Your task to perform on an android device: Show the shopping cart on ebay. Add "macbook air" to the cart on ebay, then select checkout. Image 0: 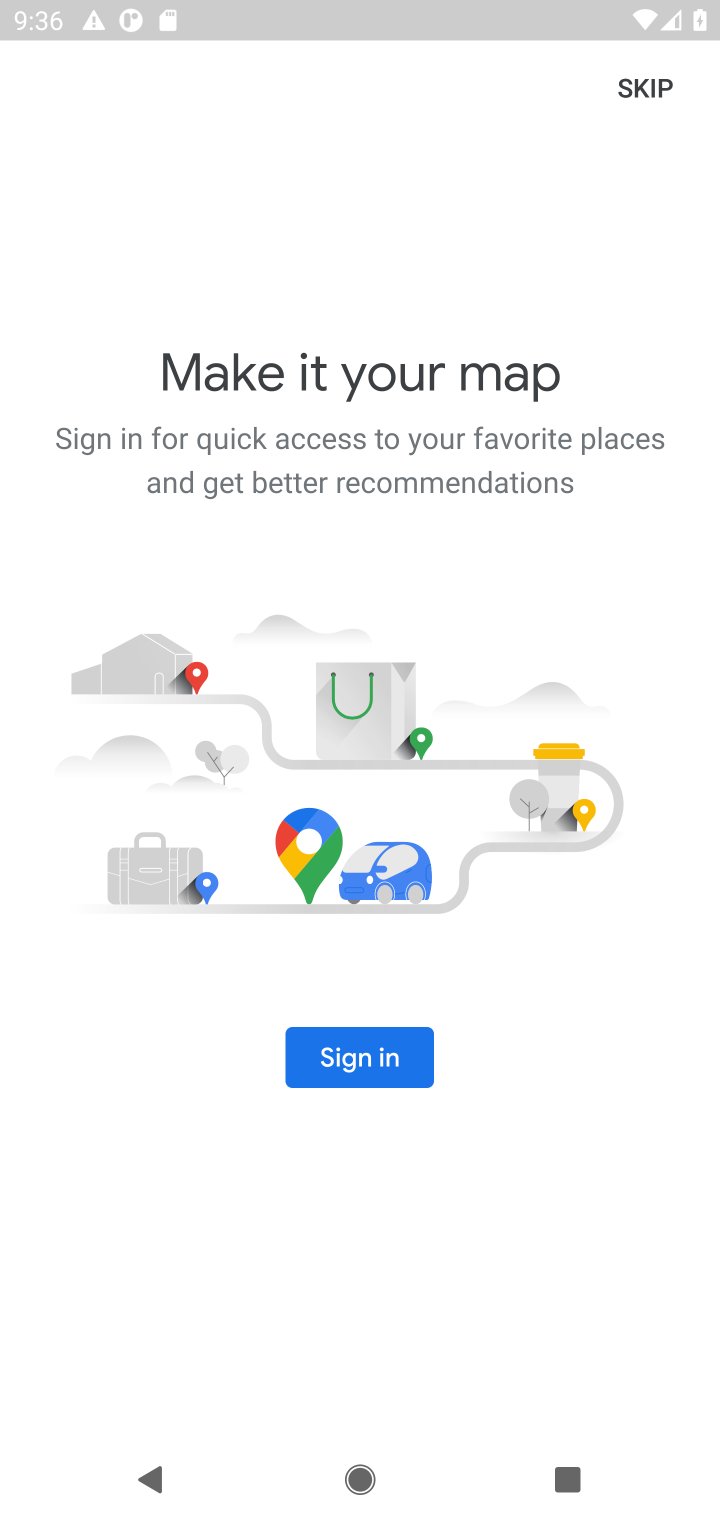
Step 0: press home button
Your task to perform on an android device: Show the shopping cart on ebay. Add "macbook air" to the cart on ebay, then select checkout. Image 1: 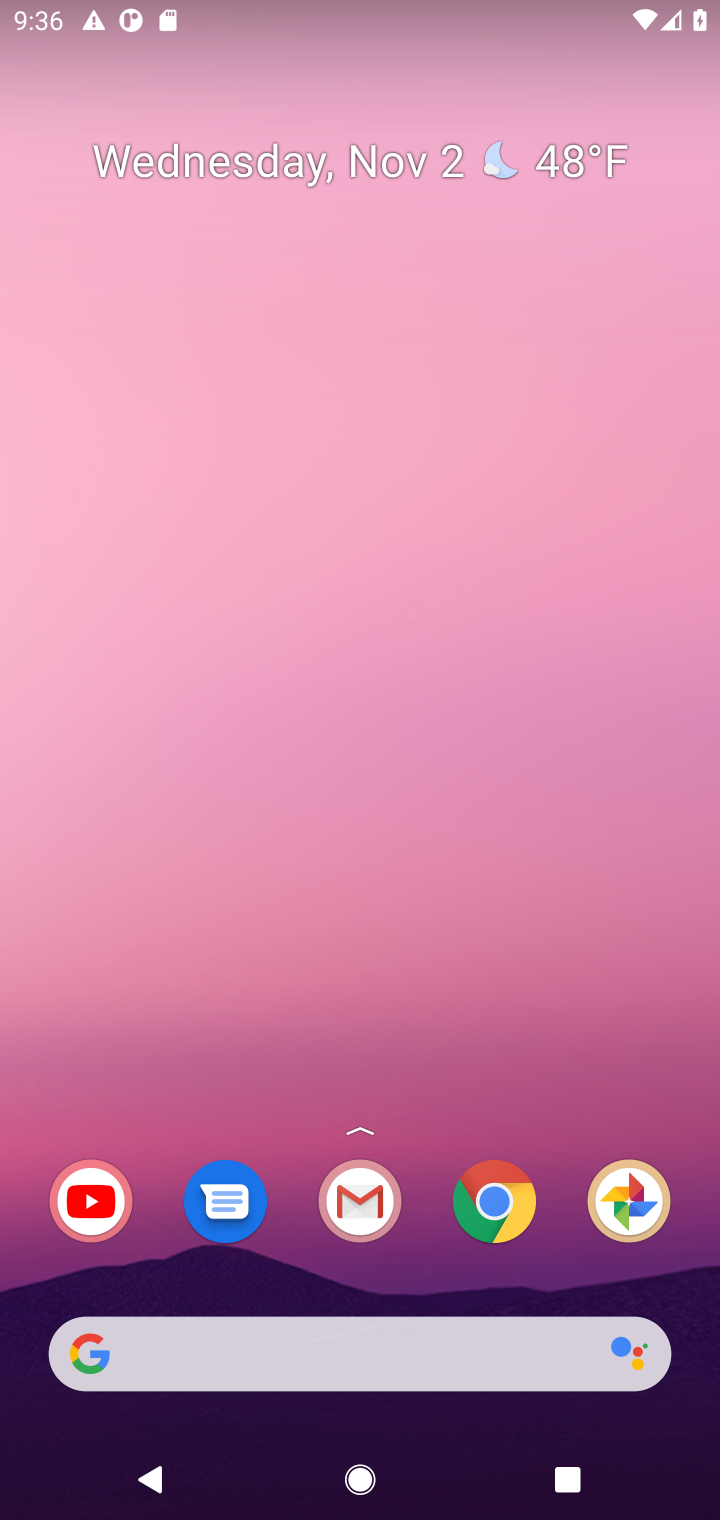
Step 1: drag from (424, 1259) to (423, 241)
Your task to perform on an android device: Show the shopping cart on ebay. Add "macbook air" to the cart on ebay, then select checkout. Image 2: 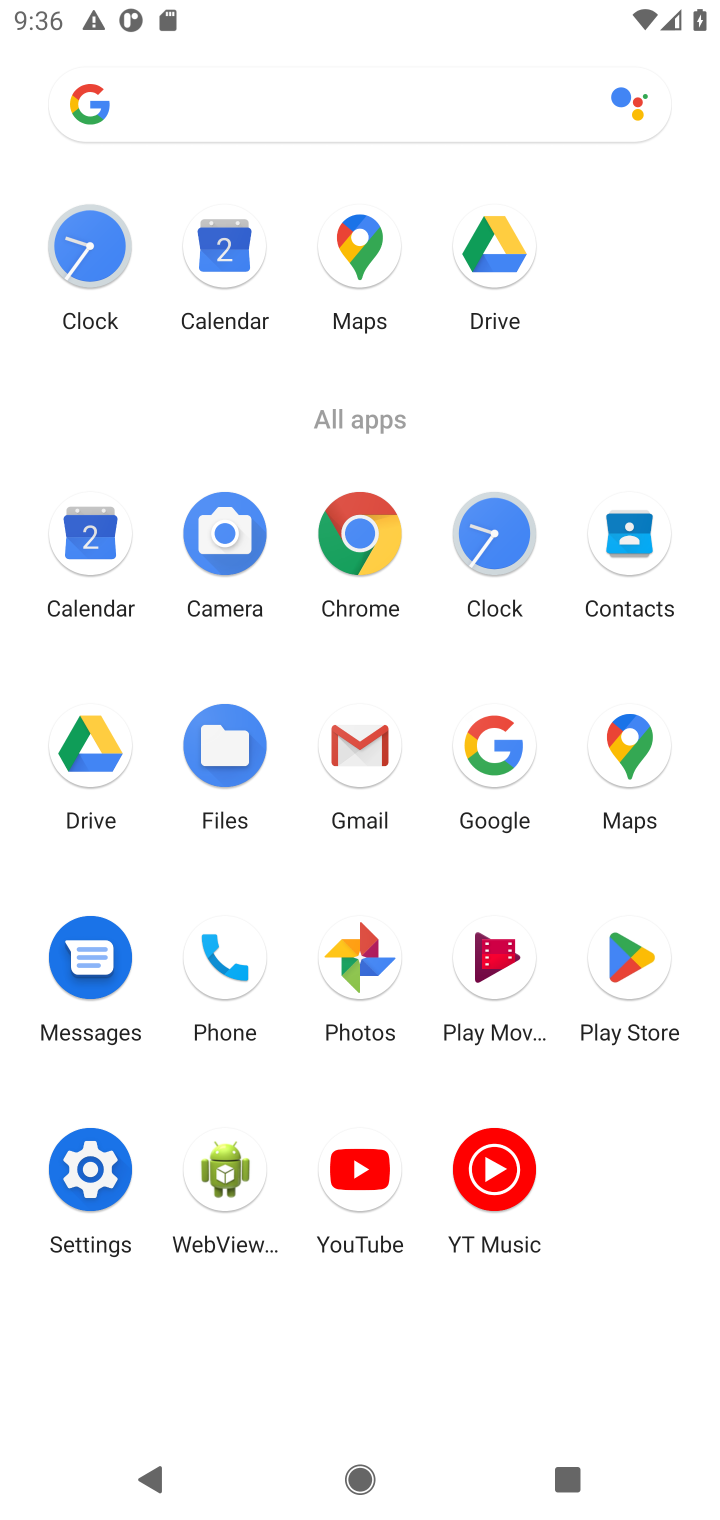
Step 2: click (354, 532)
Your task to perform on an android device: Show the shopping cart on ebay. Add "macbook air" to the cart on ebay, then select checkout. Image 3: 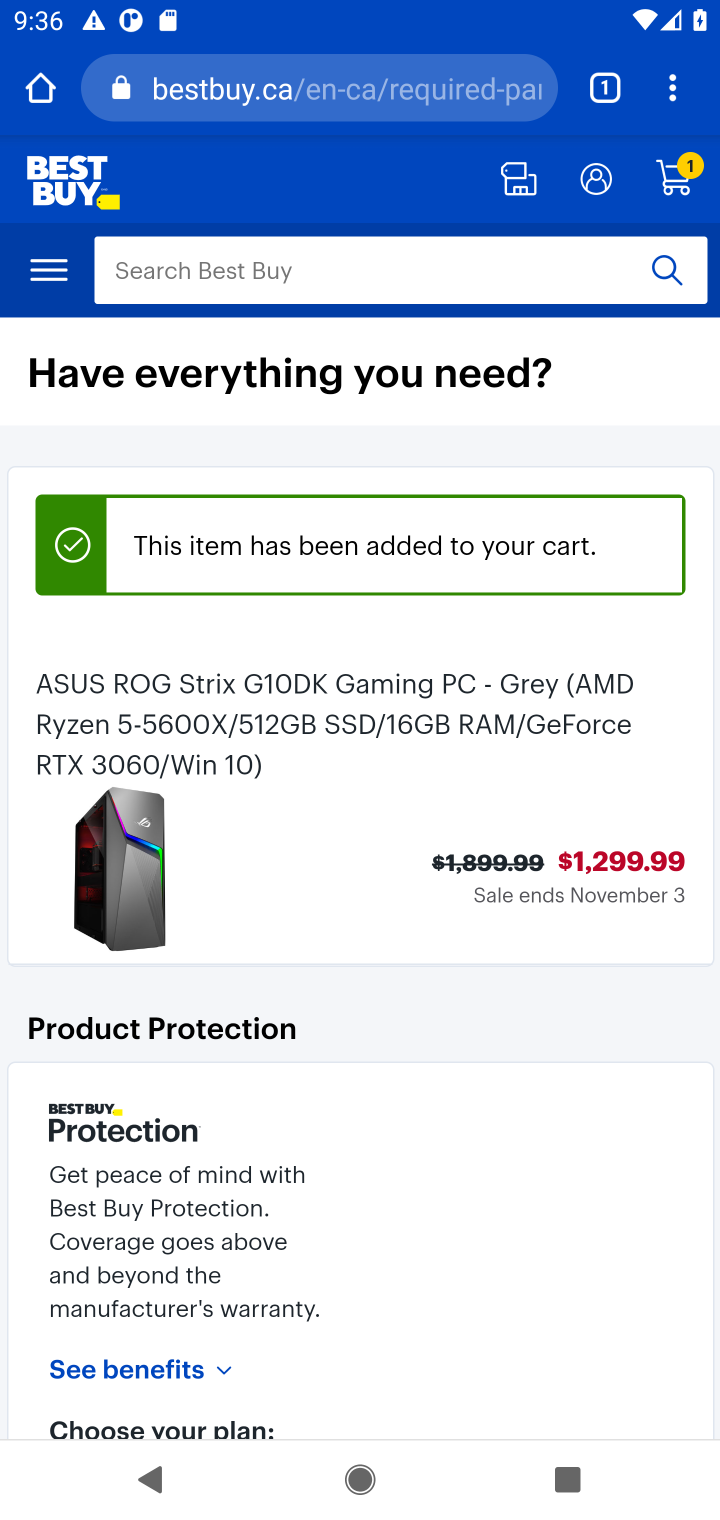
Step 3: click (361, 105)
Your task to perform on an android device: Show the shopping cart on ebay. Add "macbook air" to the cart on ebay, then select checkout. Image 4: 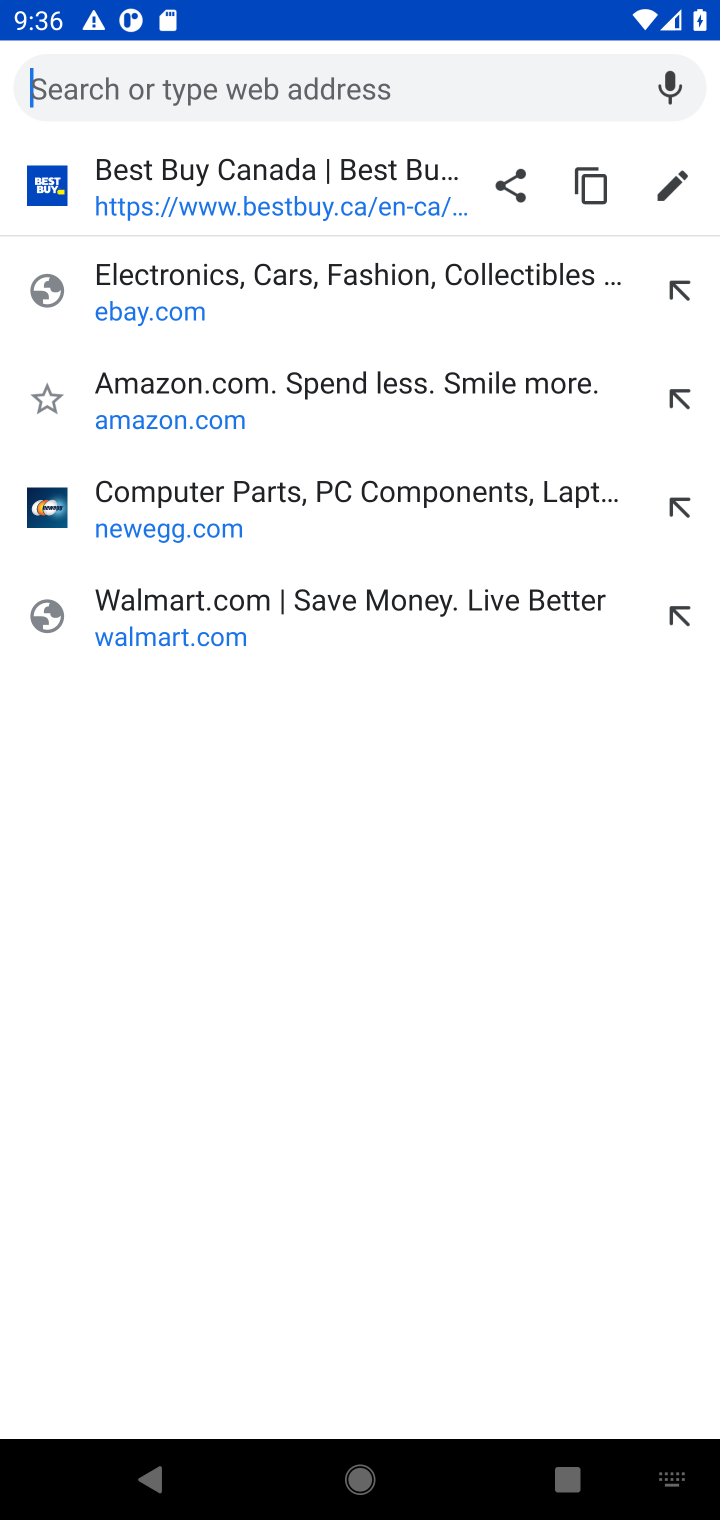
Step 4: type "ebay.com"
Your task to perform on an android device: Show the shopping cart on ebay. Add "macbook air" to the cart on ebay, then select checkout. Image 5: 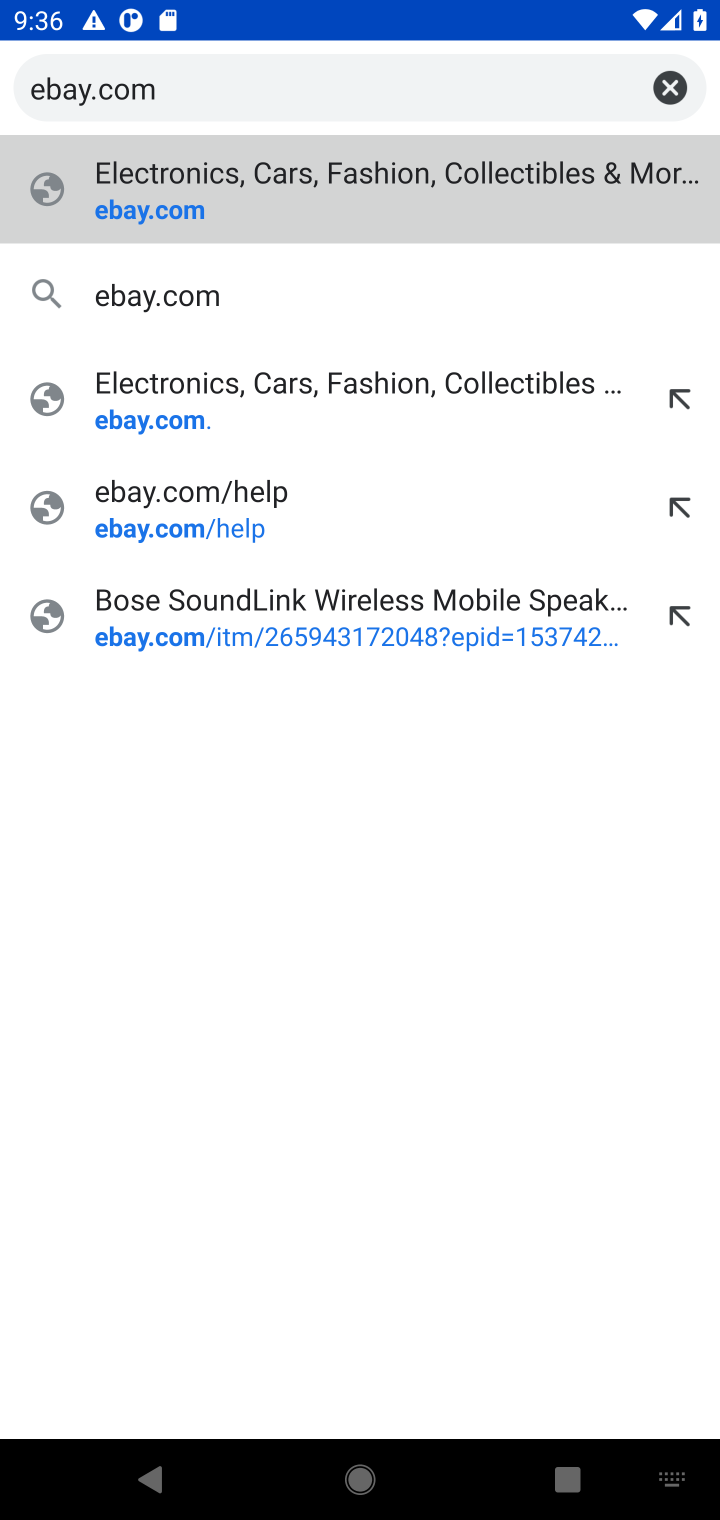
Step 5: press enter
Your task to perform on an android device: Show the shopping cart on ebay. Add "macbook air" to the cart on ebay, then select checkout. Image 6: 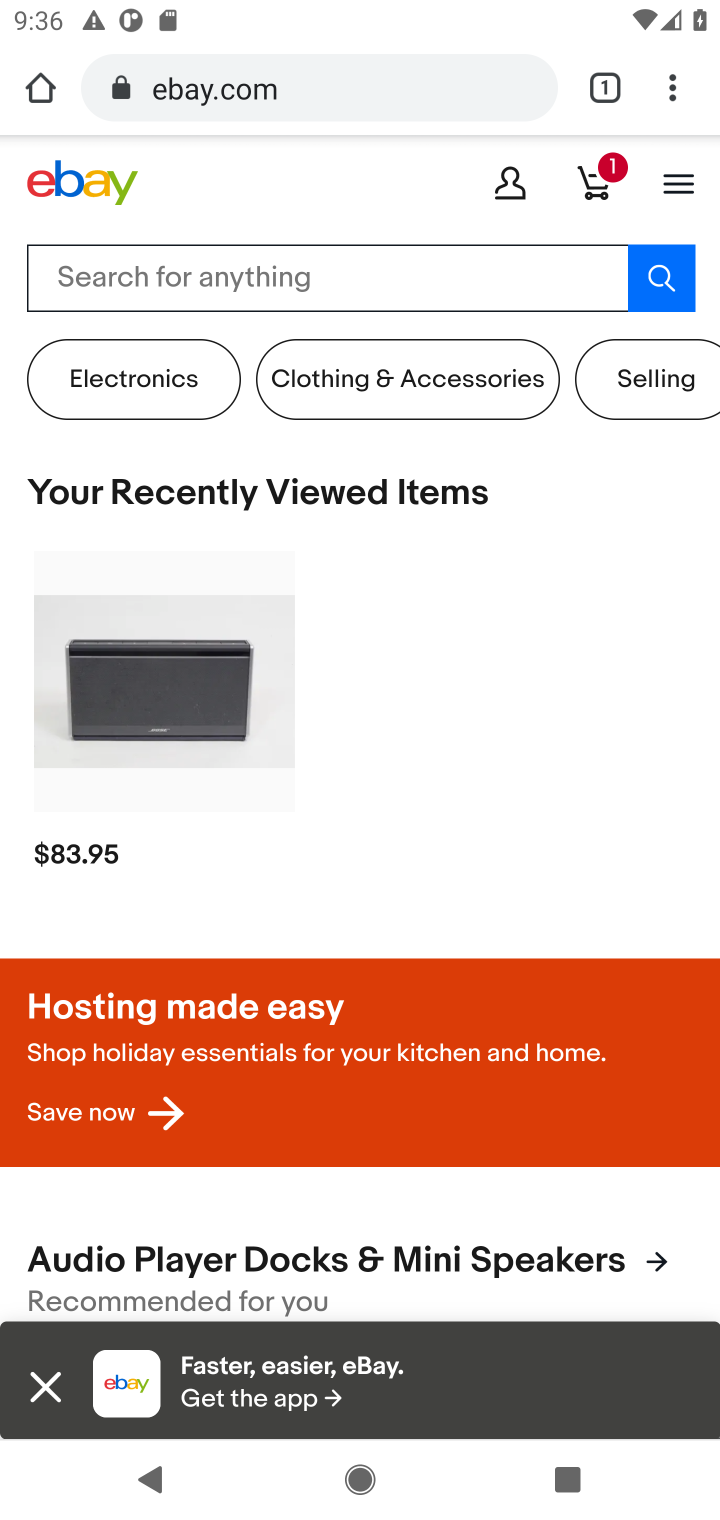
Step 6: click (596, 180)
Your task to perform on an android device: Show the shopping cart on ebay. Add "macbook air" to the cart on ebay, then select checkout. Image 7: 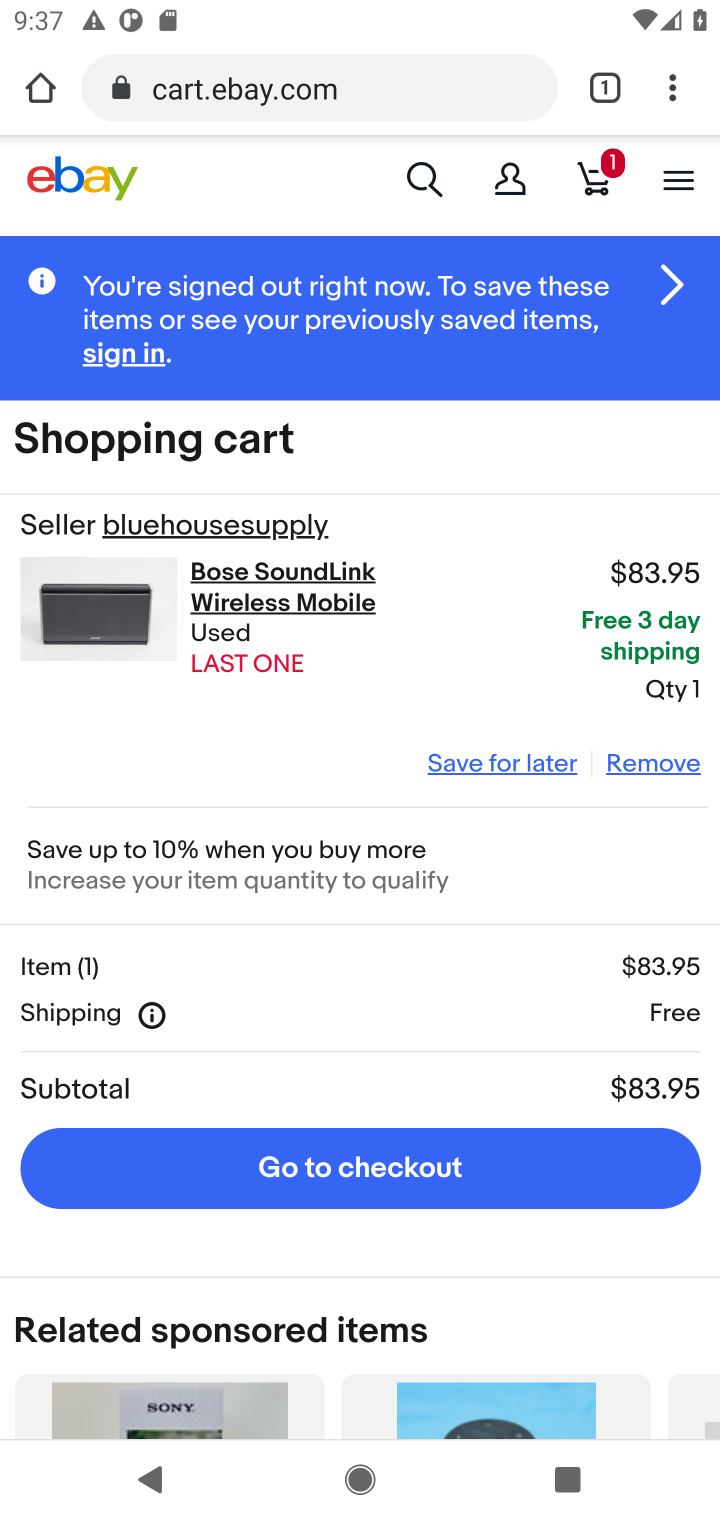
Step 7: click (427, 178)
Your task to perform on an android device: Show the shopping cart on ebay. Add "macbook air" to the cart on ebay, then select checkout. Image 8: 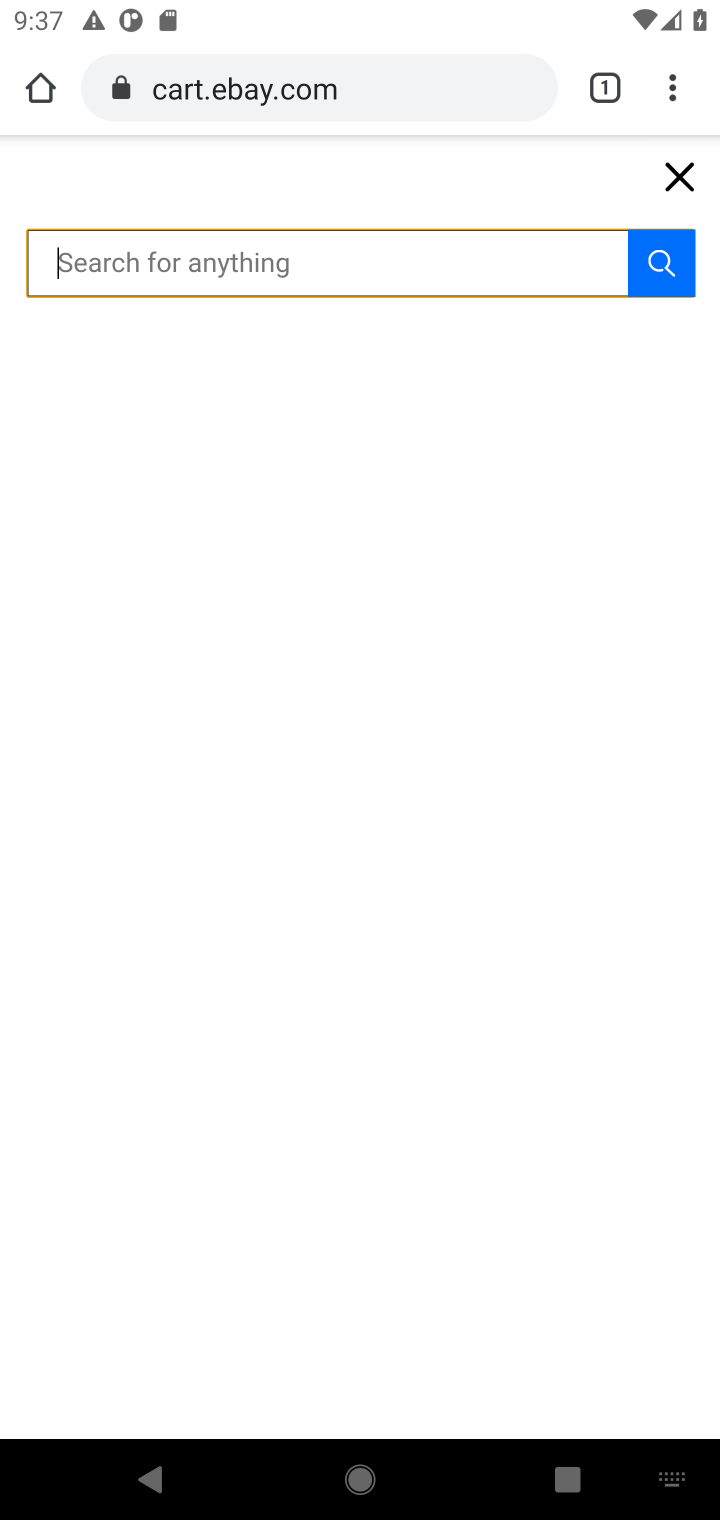
Step 8: type "macbook air"
Your task to perform on an android device: Show the shopping cart on ebay. Add "macbook air" to the cart on ebay, then select checkout. Image 9: 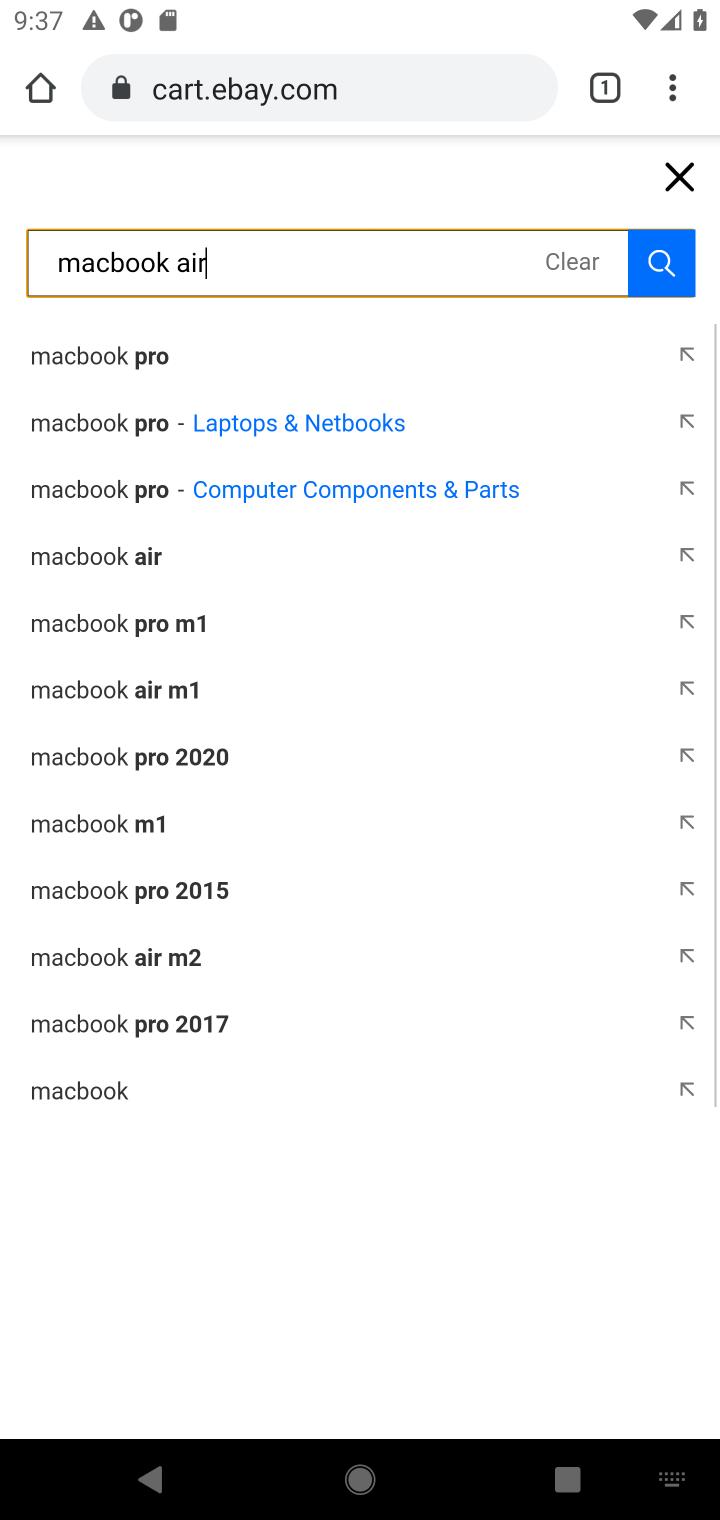
Step 9: press enter
Your task to perform on an android device: Show the shopping cart on ebay. Add "macbook air" to the cart on ebay, then select checkout. Image 10: 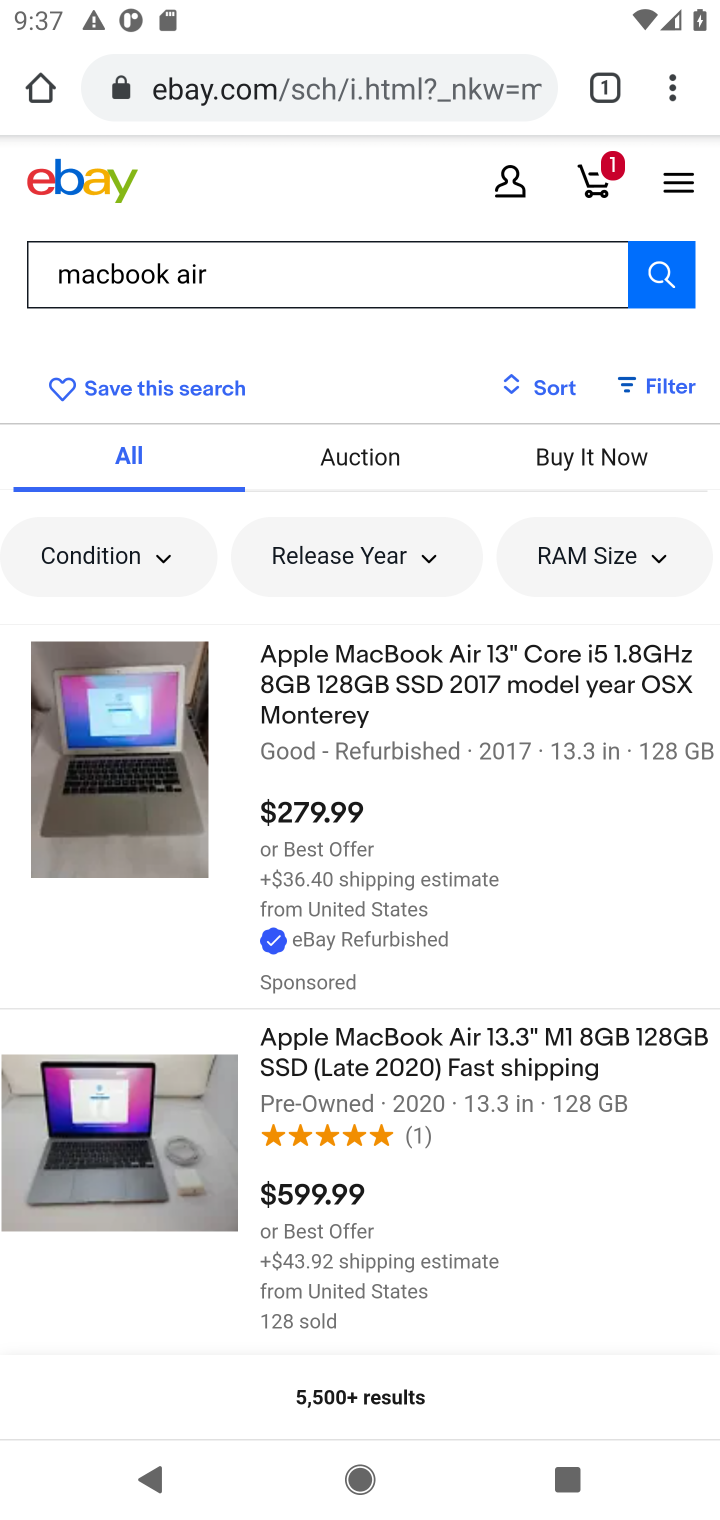
Step 10: click (309, 677)
Your task to perform on an android device: Show the shopping cart on ebay. Add "macbook air" to the cart on ebay, then select checkout. Image 11: 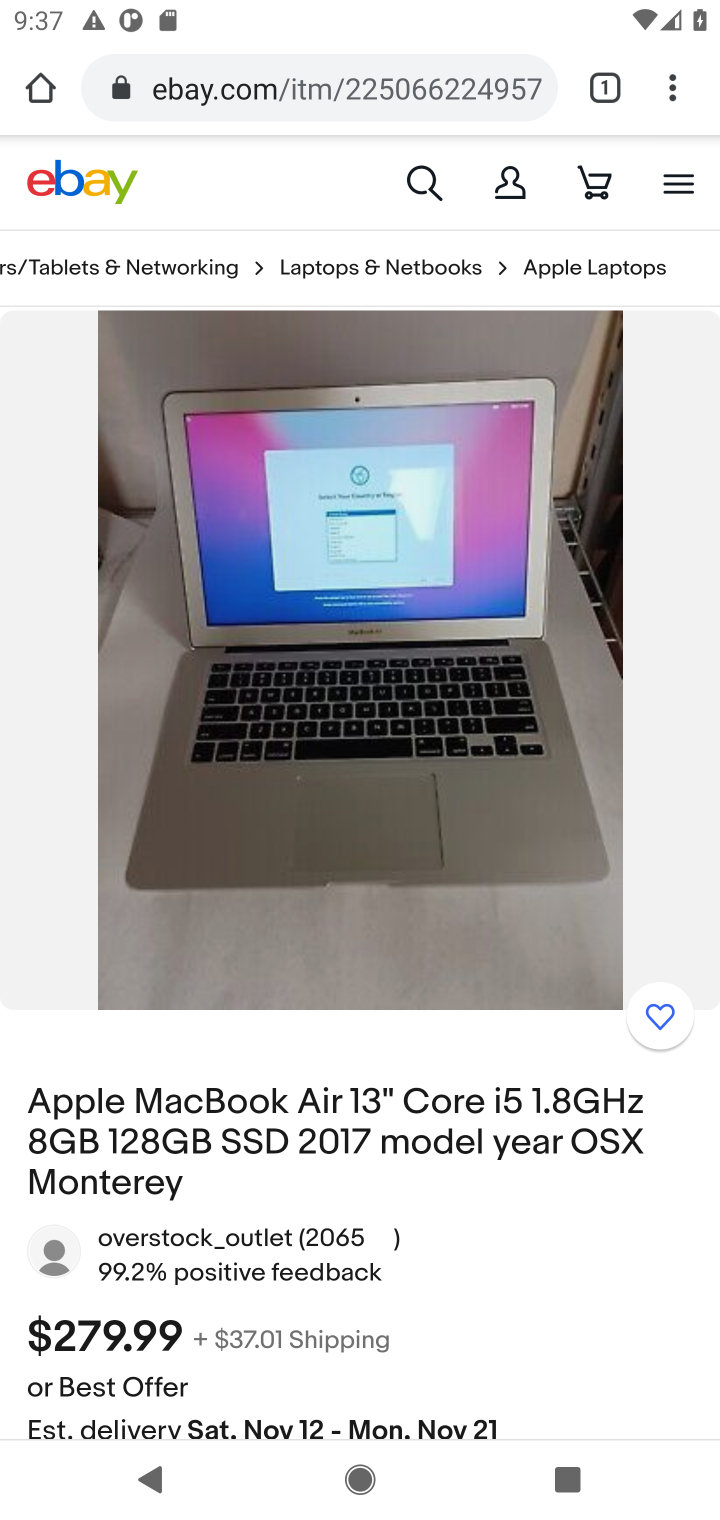
Step 11: drag from (532, 1084) to (498, 535)
Your task to perform on an android device: Show the shopping cart on ebay. Add "macbook air" to the cart on ebay, then select checkout. Image 12: 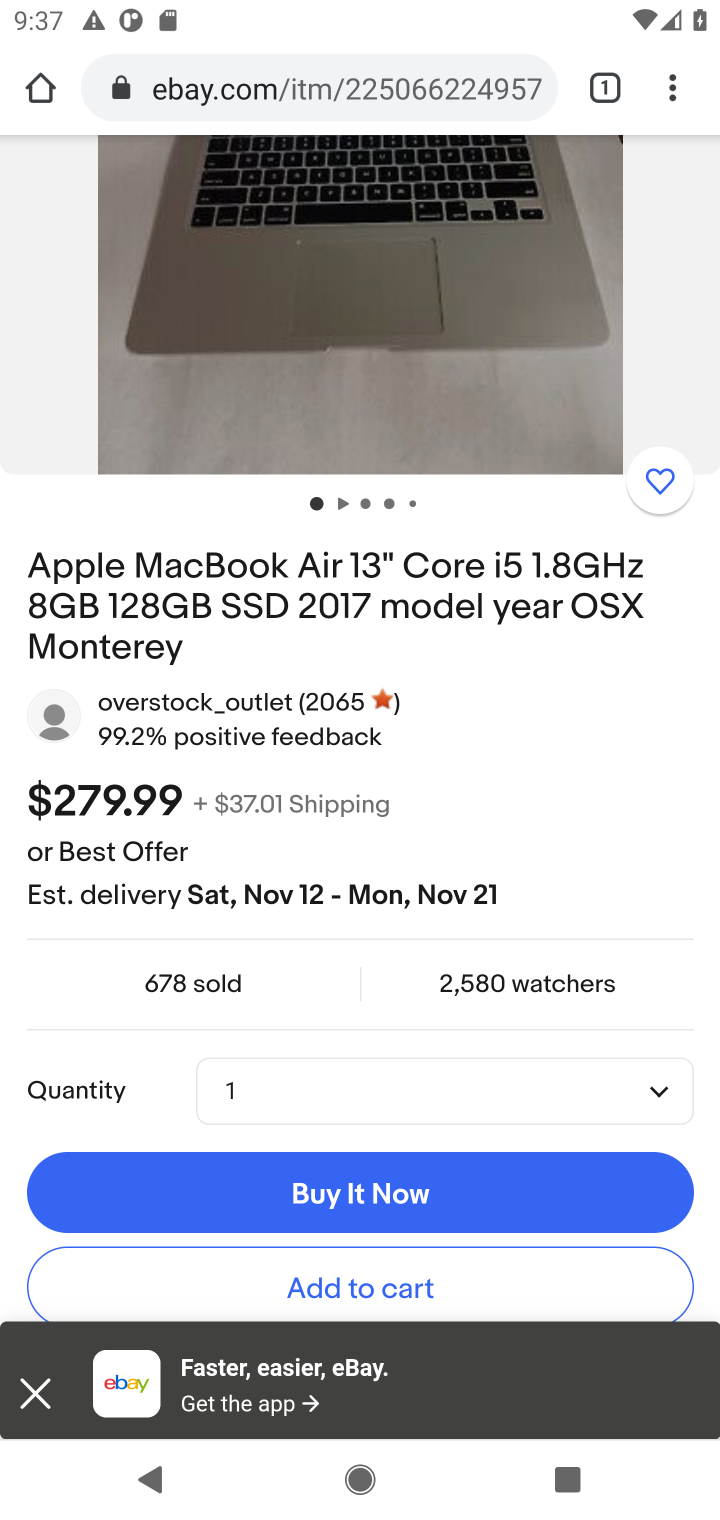
Step 12: click (439, 1288)
Your task to perform on an android device: Show the shopping cart on ebay. Add "macbook air" to the cart on ebay, then select checkout. Image 13: 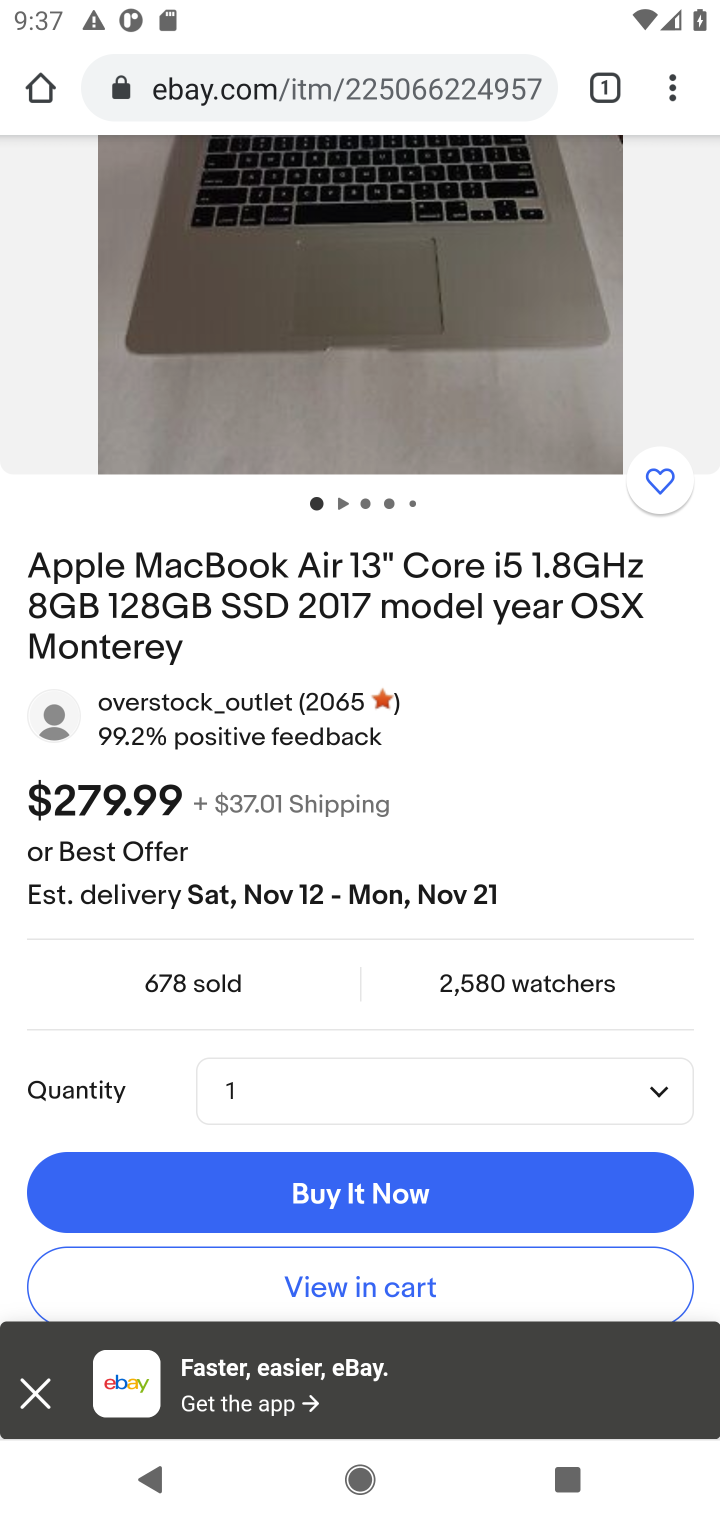
Step 13: click (293, 1303)
Your task to perform on an android device: Show the shopping cart on ebay. Add "macbook air" to the cart on ebay, then select checkout. Image 14: 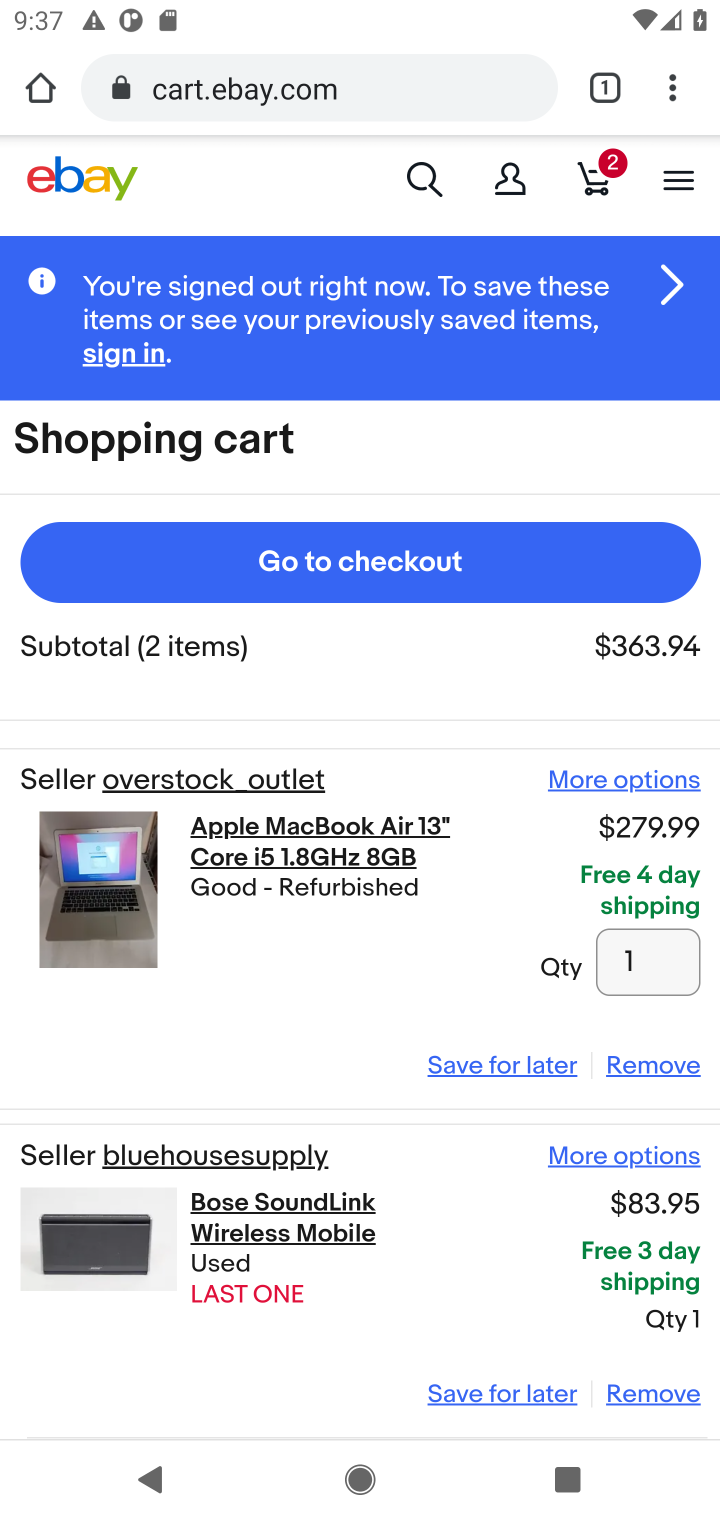
Step 14: click (384, 561)
Your task to perform on an android device: Show the shopping cart on ebay. Add "macbook air" to the cart on ebay, then select checkout. Image 15: 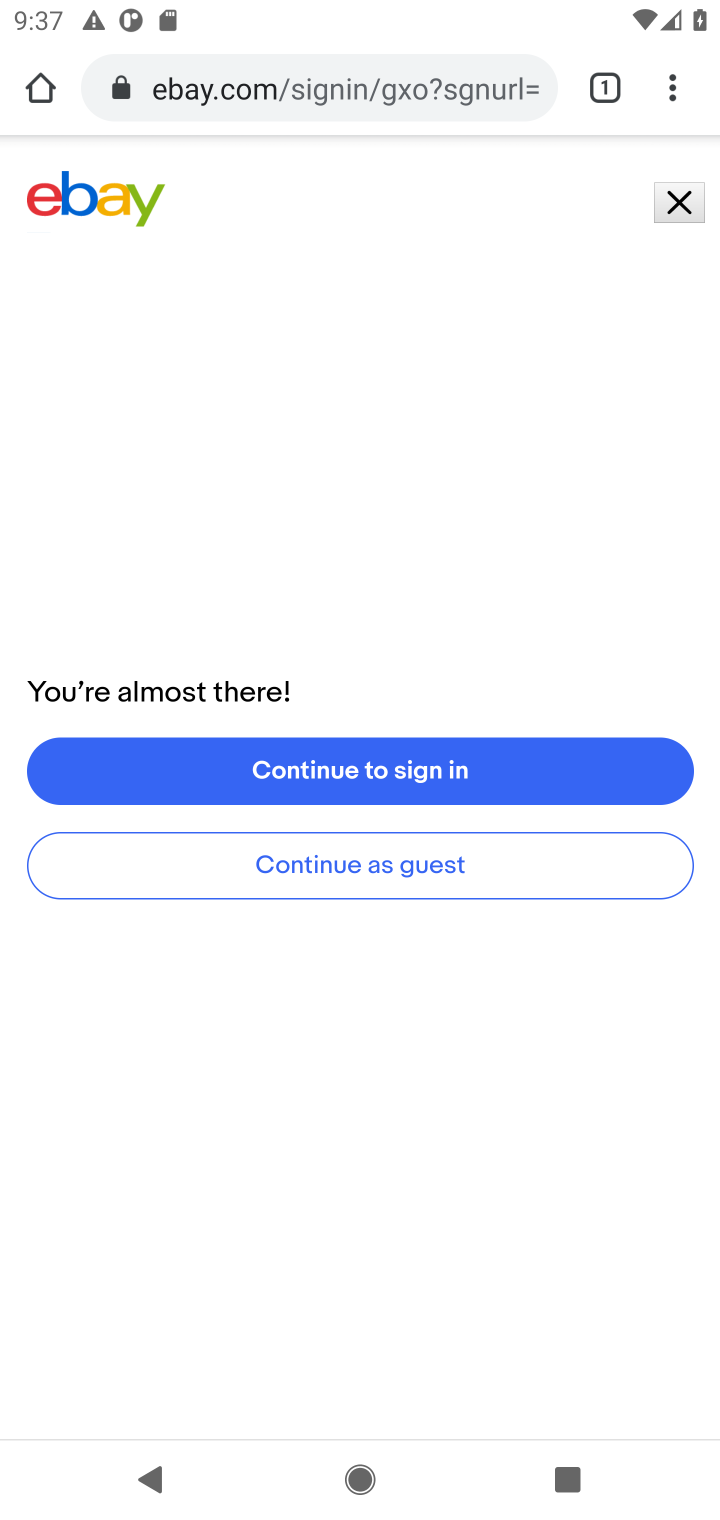
Step 15: task complete